Your task to perform on an android device: turn off notifications in google photos Image 0: 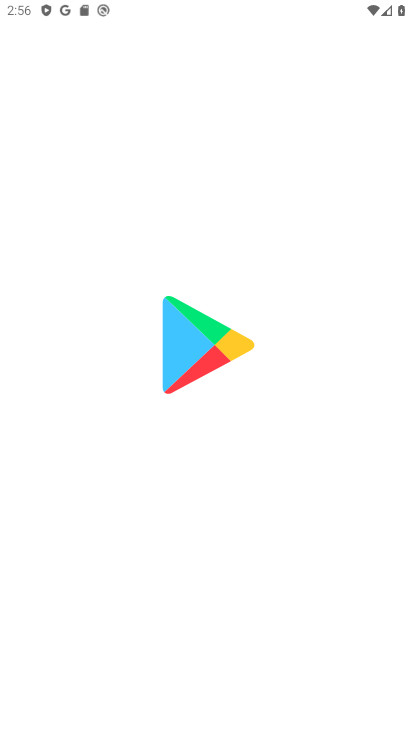
Step 0: drag from (276, 589) to (323, 170)
Your task to perform on an android device: turn off notifications in google photos Image 1: 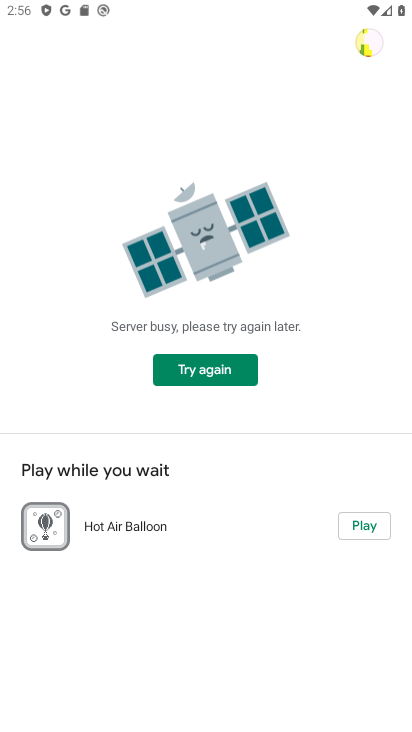
Step 1: press back button
Your task to perform on an android device: turn off notifications in google photos Image 2: 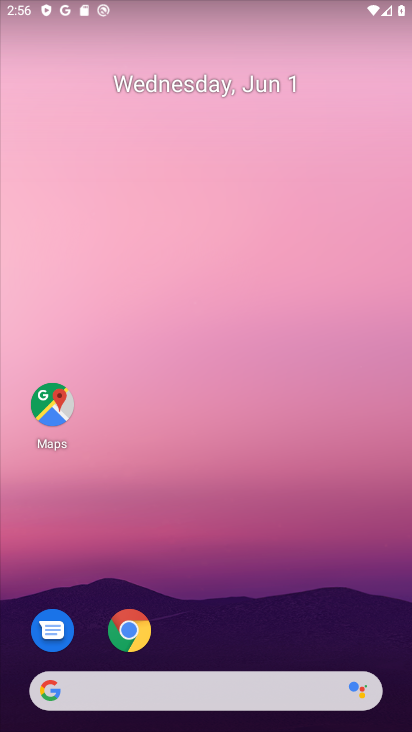
Step 2: drag from (215, 599) to (265, 126)
Your task to perform on an android device: turn off notifications in google photos Image 3: 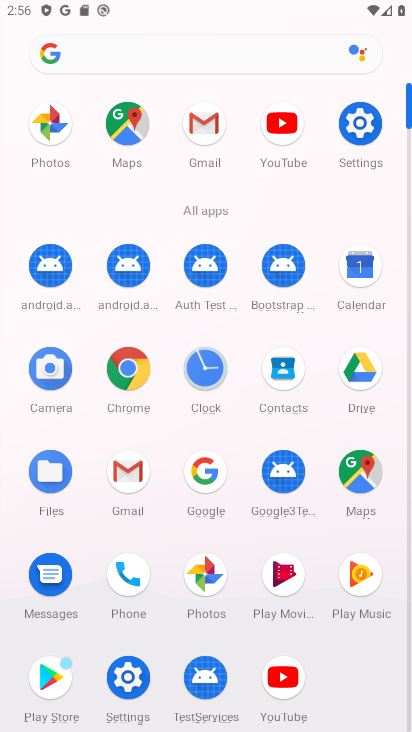
Step 3: click (207, 575)
Your task to perform on an android device: turn off notifications in google photos Image 4: 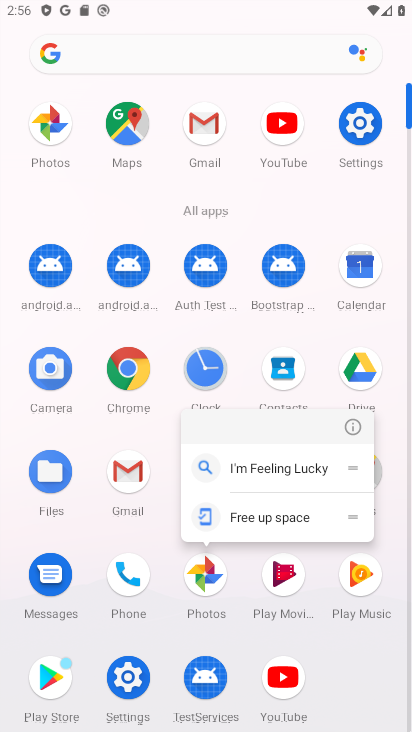
Step 4: click (353, 430)
Your task to perform on an android device: turn off notifications in google photos Image 5: 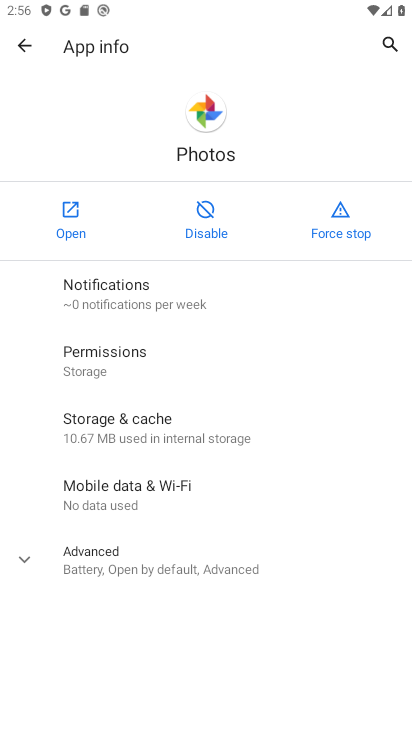
Step 5: click (116, 294)
Your task to perform on an android device: turn off notifications in google photos Image 6: 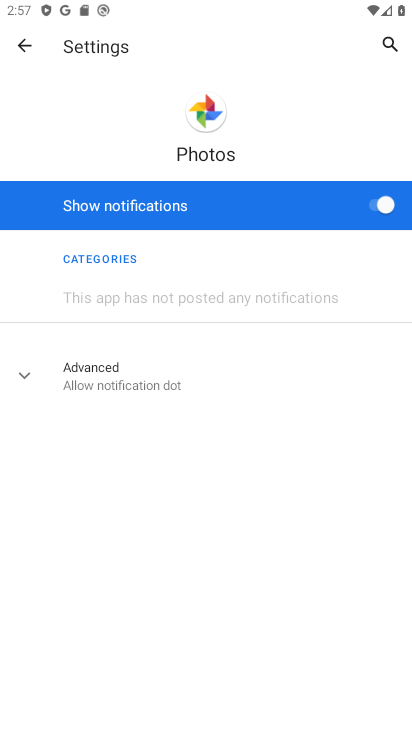
Step 6: click (378, 205)
Your task to perform on an android device: turn off notifications in google photos Image 7: 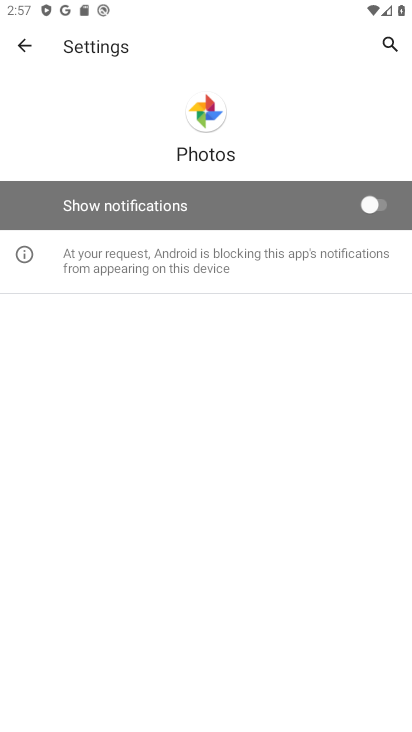
Step 7: task complete